Your task to perform on an android device: toggle pop-ups in chrome Image 0: 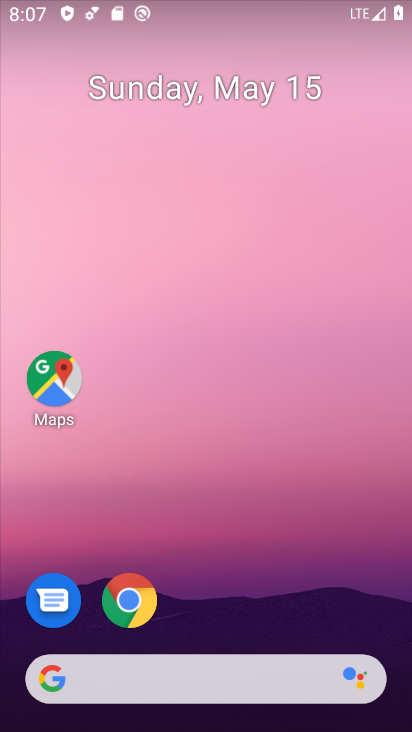
Step 0: click (141, 605)
Your task to perform on an android device: toggle pop-ups in chrome Image 1: 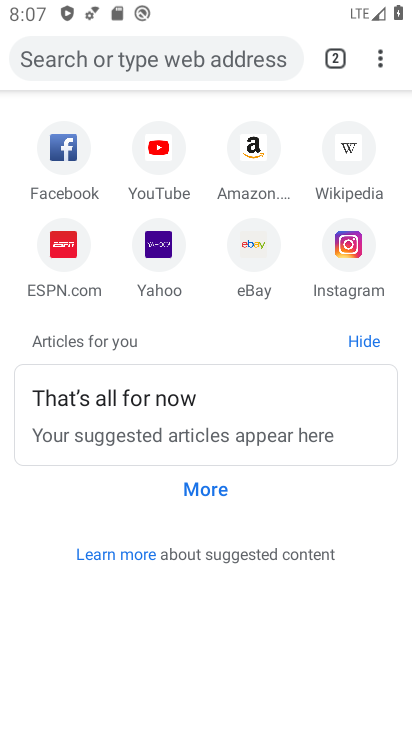
Step 1: click (382, 70)
Your task to perform on an android device: toggle pop-ups in chrome Image 2: 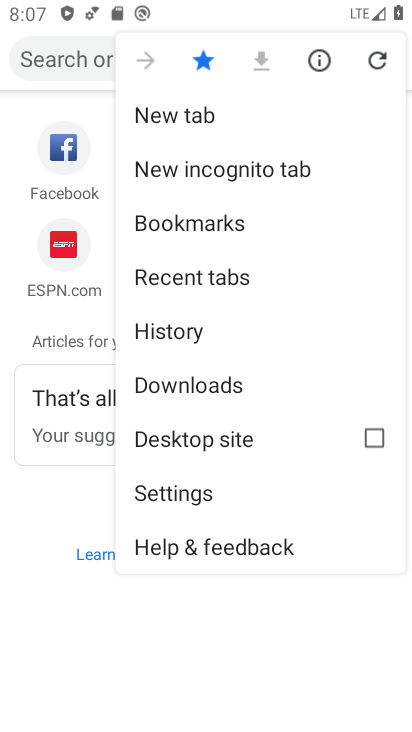
Step 2: click (185, 487)
Your task to perform on an android device: toggle pop-ups in chrome Image 3: 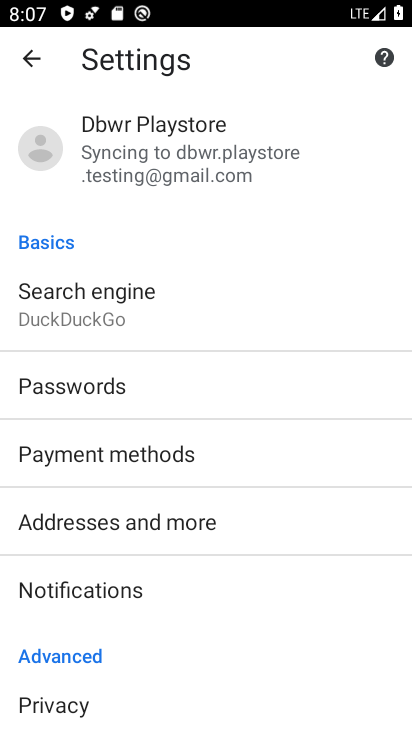
Step 3: drag from (145, 570) to (145, 257)
Your task to perform on an android device: toggle pop-ups in chrome Image 4: 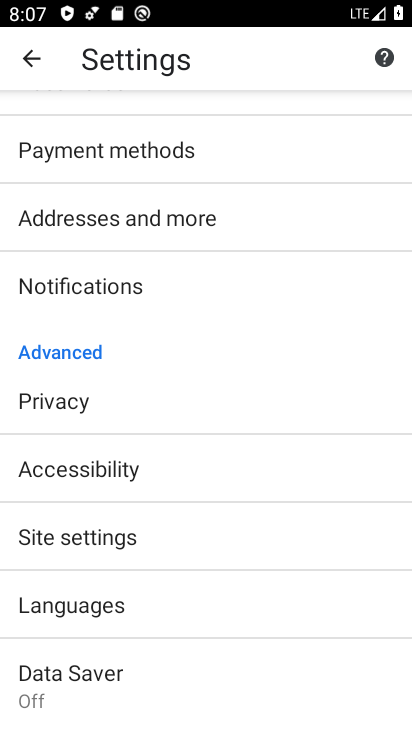
Step 4: click (88, 540)
Your task to perform on an android device: toggle pop-ups in chrome Image 5: 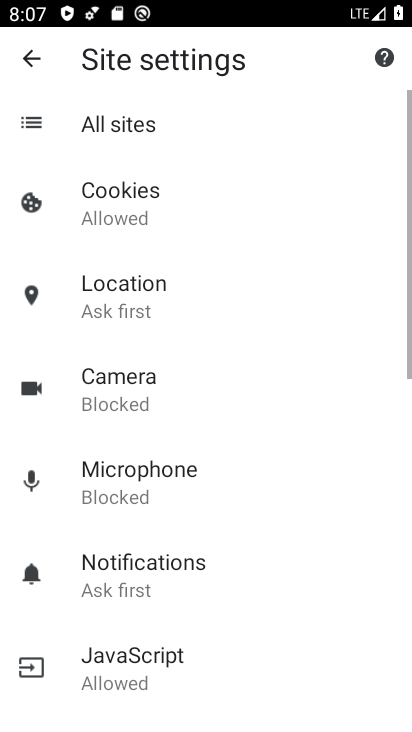
Step 5: drag from (90, 539) to (109, 254)
Your task to perform on an android device: toggle pop-ups in chrome Image 6: 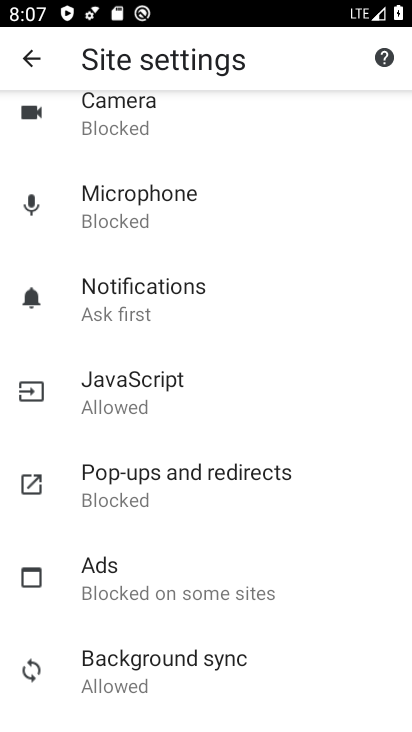
Step 6: click (266, 477)
Your task to perform on an android device: toggle pop-ups in chrome Image 7: 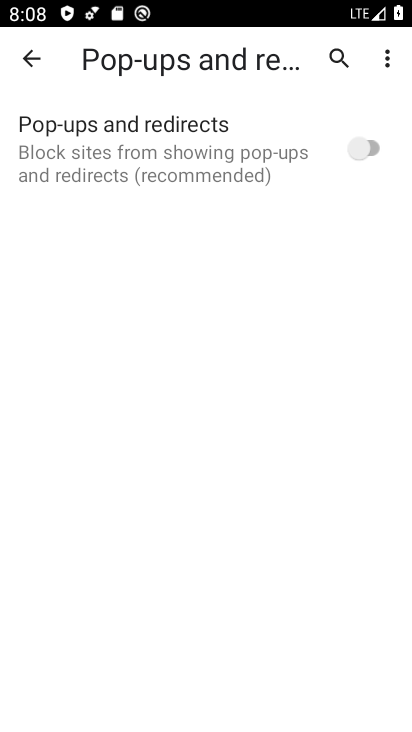
Step 7: click (363, 144)
Your task to perform on an android device: toggle pop-ups in chrome Image 8: 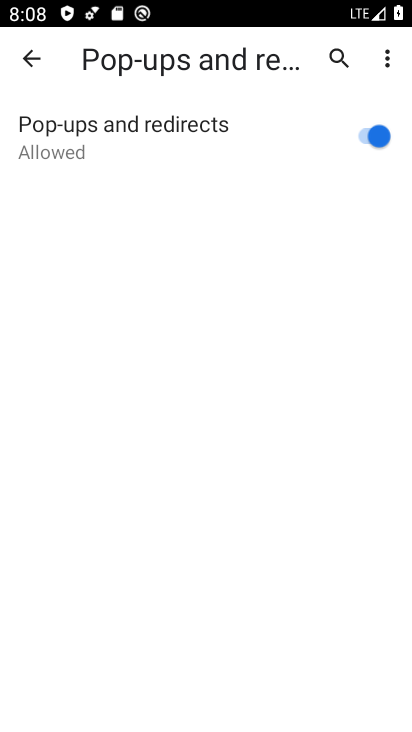
Step 8: task complete